Your task to perform on an android device: Go to Google Image 0: 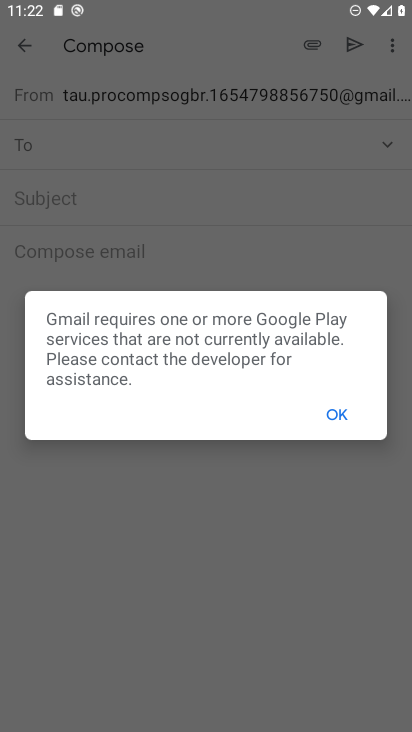
Step 0: press home button
Your task to perform on an android device: Go to Google Image 1: 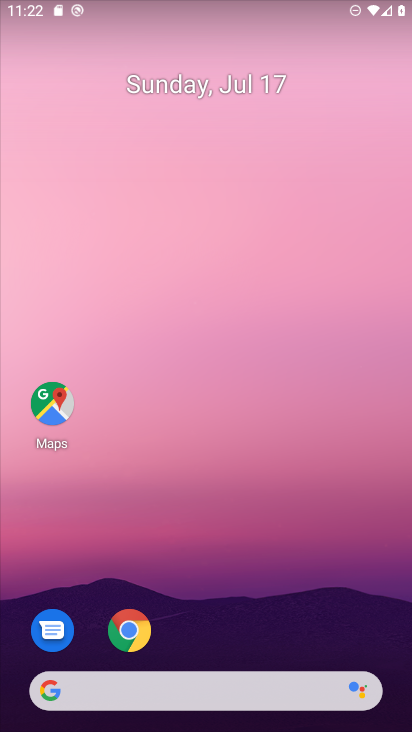
Step 1: click (146, 687)
Your task to perform on an android device: Go to Google Image 2: 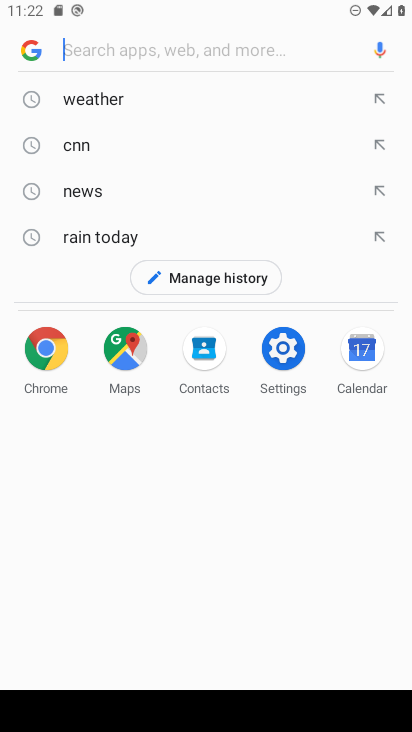
Step 2: task complete